Your task to perform on an android device: Search for vegetarian restaurants on Maps Image 0: 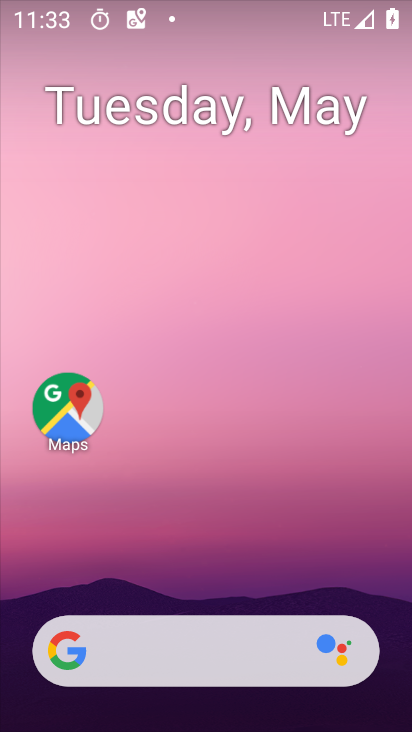
Step 0: click (72, 409)
Your task to perform on an android device: Search for vegetarian restaurants on Maps Image 1: 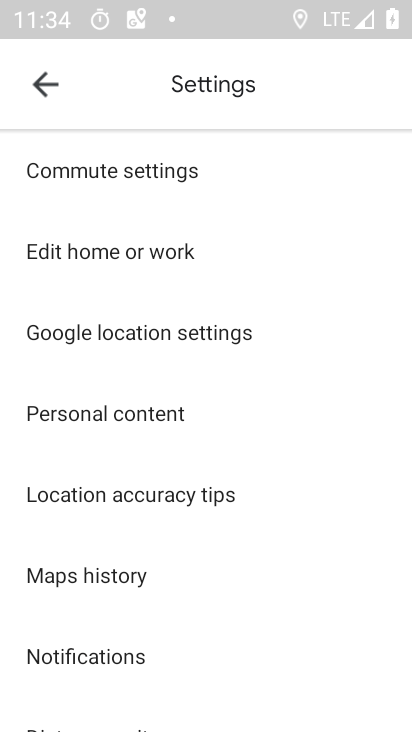
Step 1: click (44, 83)
Your task to perform on an android device: Search for vegetarian restaurants on Maps Image 2: 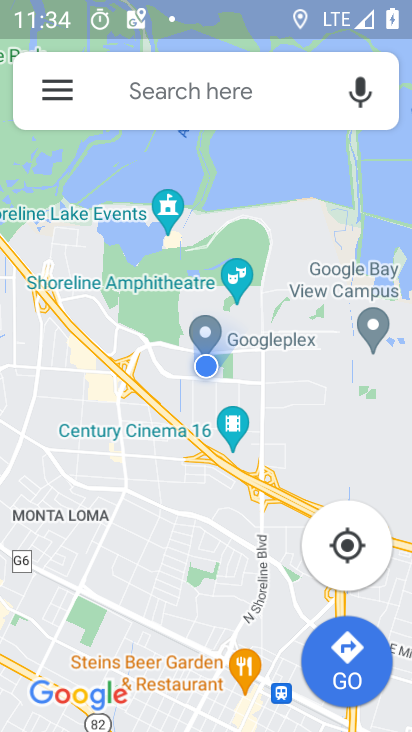
Step 2: click (164, 92)
Your task to perform on an android device: Search for vegetarian restaurants on Maps Image 3: 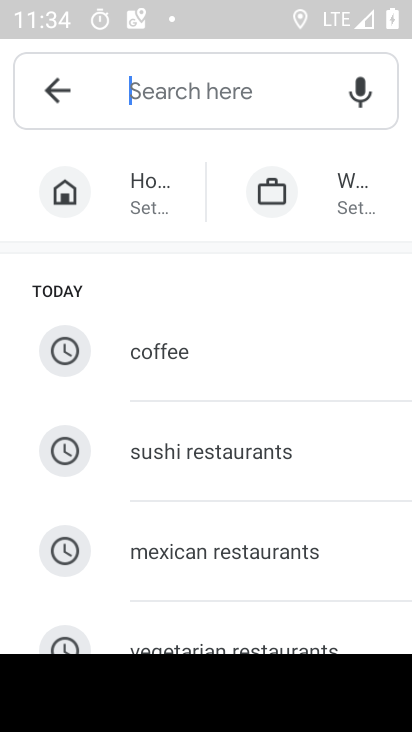
Step 3: click (301, 636)
Your task to perform on an android device: Search for vegetarian restaurants on Maps Image 4: 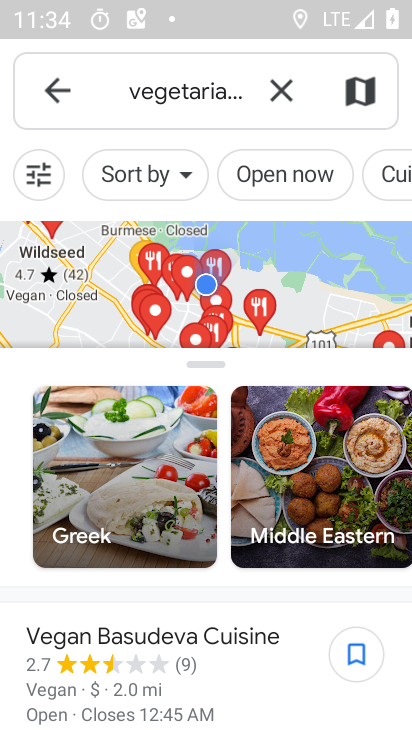
Step 4: task complete